Your task to perform on an android device: turn notification dots on Image 0: 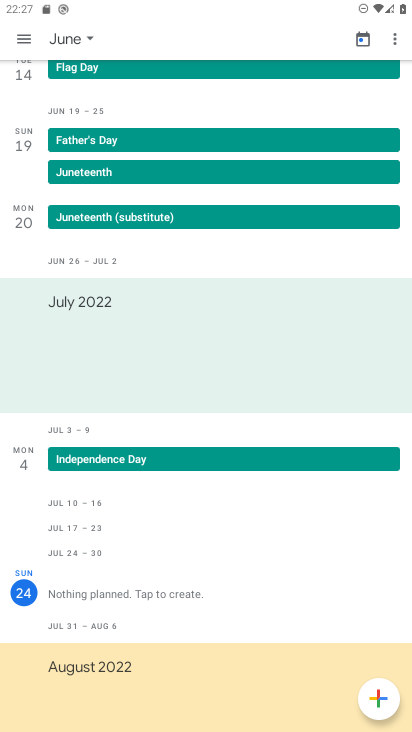
Step 0: press home button
Your task to perform on an android device: turn notification dots on Image 1: 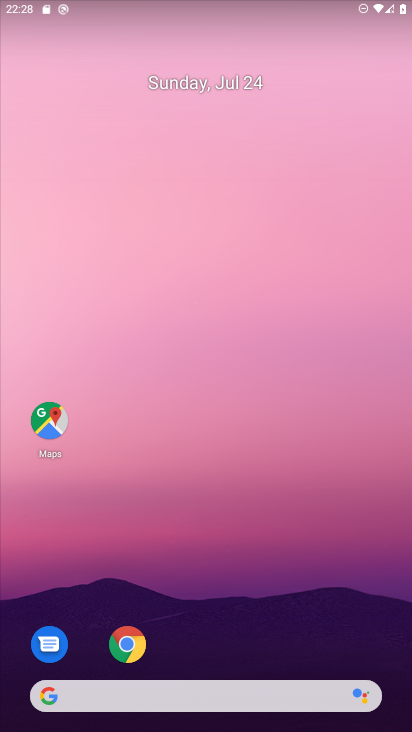
Step 1: drag from (358, 622) to (357, 26)
Your task to perform on an android device: turn notification dots on Image 2: 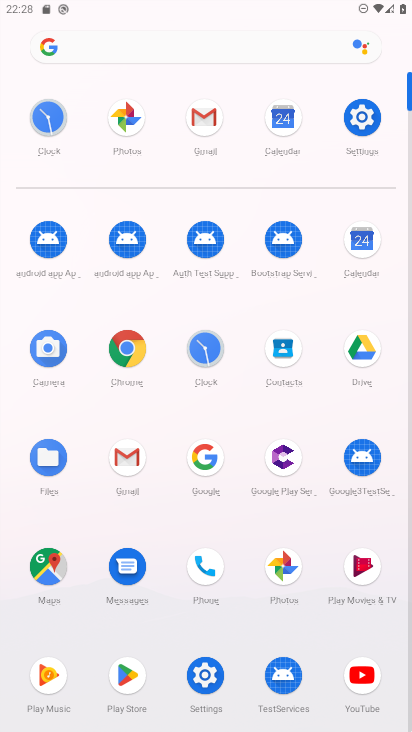
Step 2: click (206, 675)
Your task to perform on an android device: turn notification dots on Image 3: 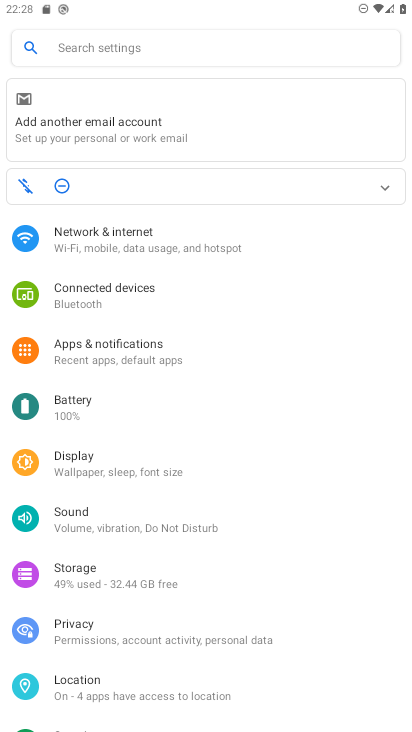
Step 3: click (97, 361)
Your task to perform on an android device: turn notification dots on Image 4: 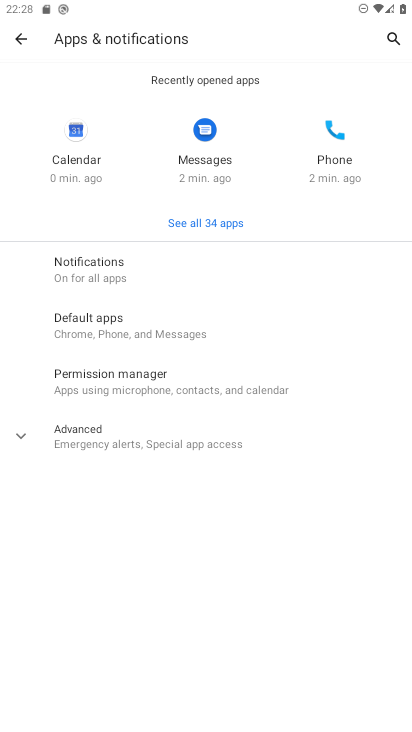
Step 4: click (71, 253)
Your task to perform on an android device: turn notification dots on Image 5: 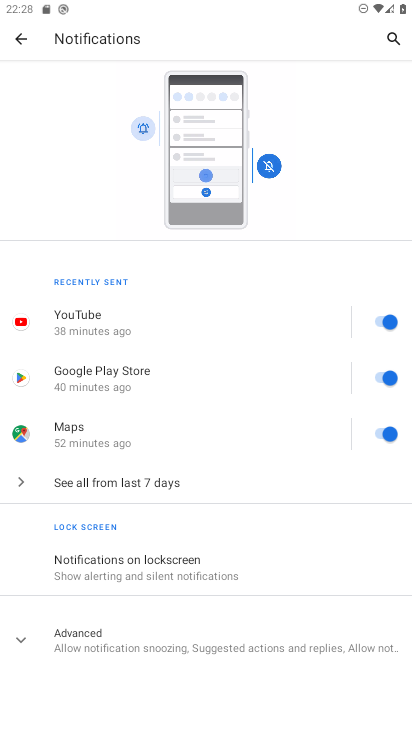
Step 5: click (36, 641)
Your task to perform on an android device: turn notification dots on Image 6: 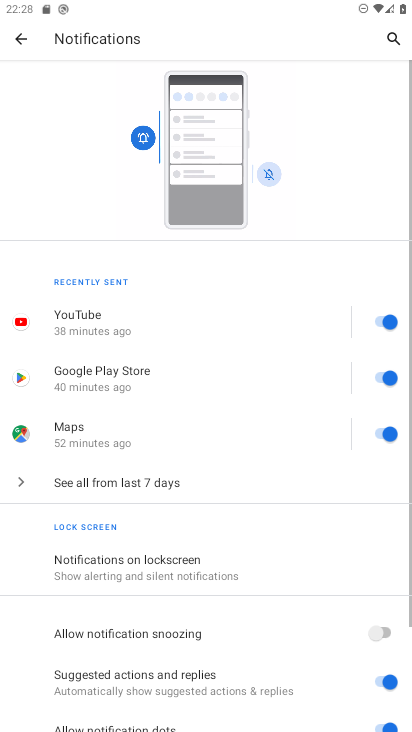
Step 6: task complete